Your task to perform on an android device: Open display settings Image 0: 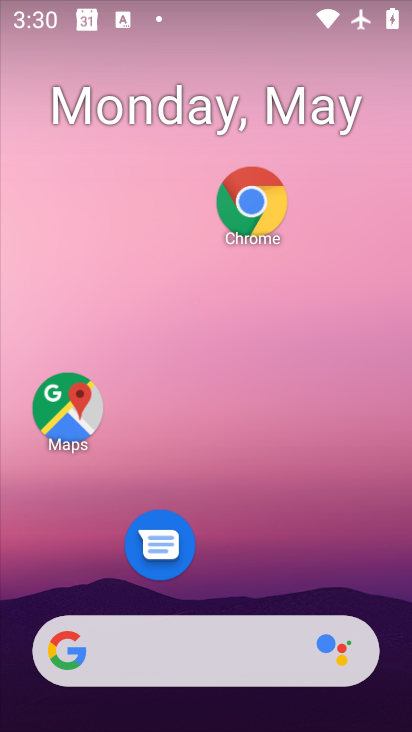
Step 0: drag from (247, 568) to (249, 223)
Your task to perform on an android device: Open display settings Image 1: 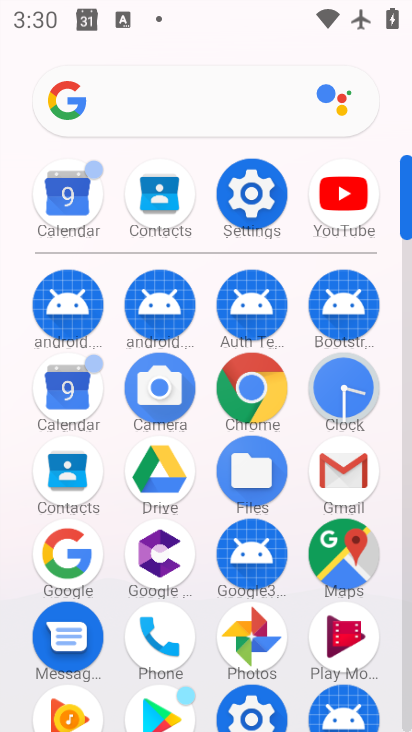
Step 1: click (254, 194)
Your task to perform on an android device: Open display settings Image 2: 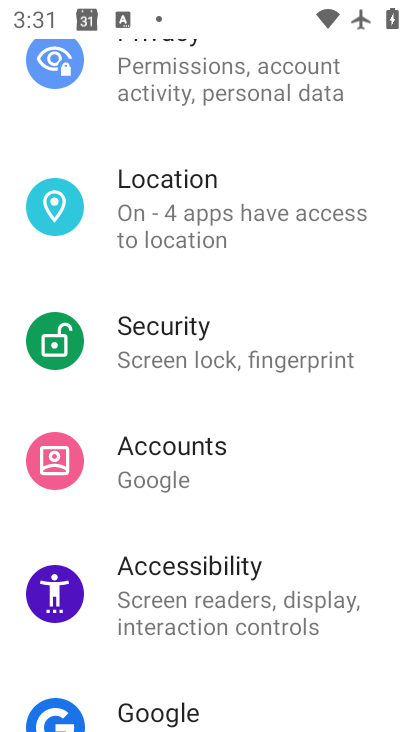
Step 2: drag from (212, 268) to (231, 559)
Your task to perform on an android device: Open display settings Image 3: 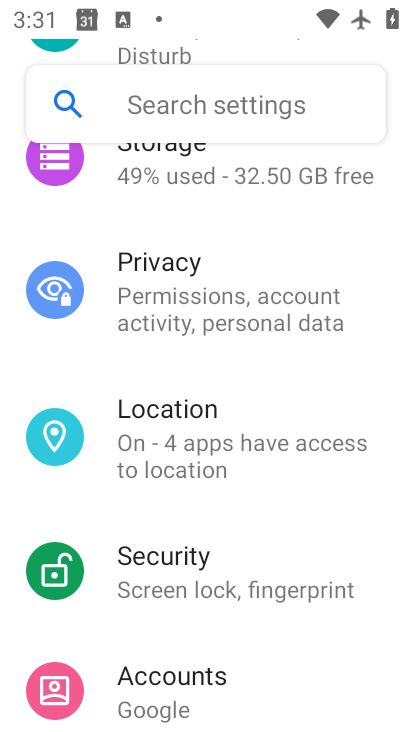
Step 3: drag from (254, 247) to (247, 497)
Your task to perform on an android device: Open display settings Image 4: 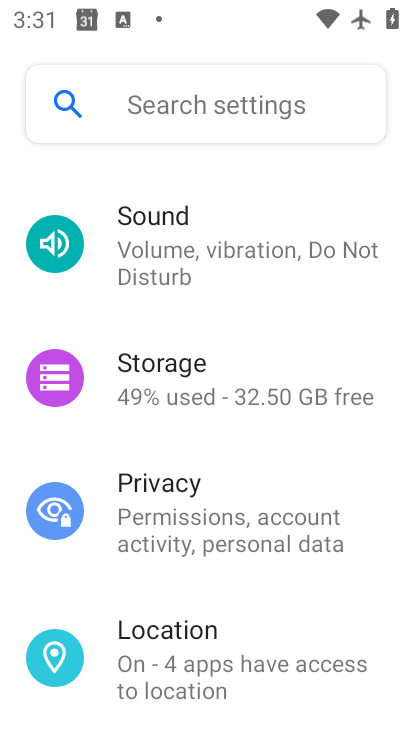
Step 4: drag from (216, 221) to (216, 456)
Your task to perform on an android device: Open display settings Image 5: 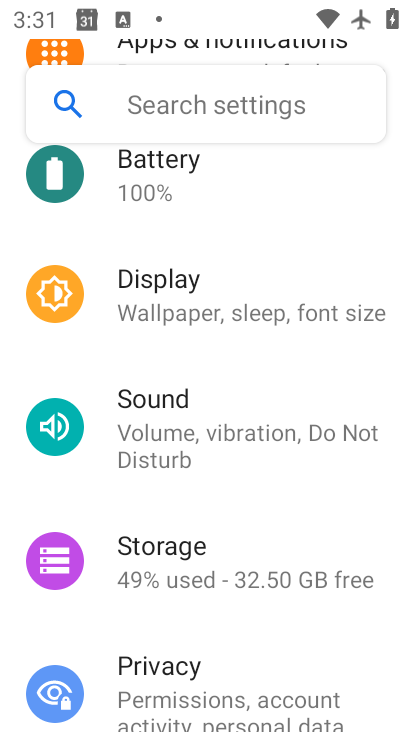
Step 5: click (173, 303)
Your task to perform on an android device: Open display settings Image 6: 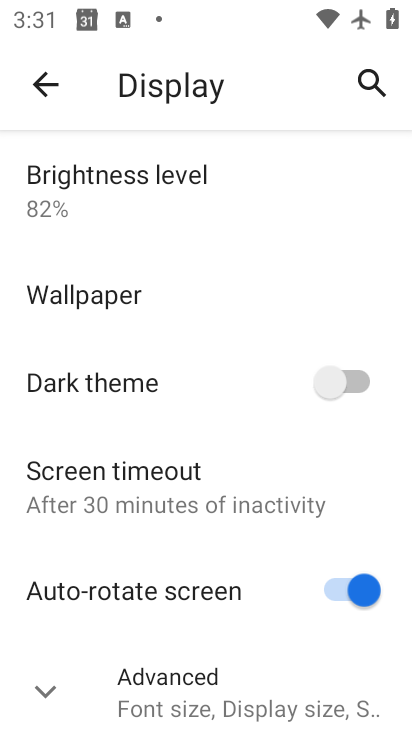
Step 6: task complete